Your task to perform on an android device: Open calendar and show me the second week of next month Image 0: 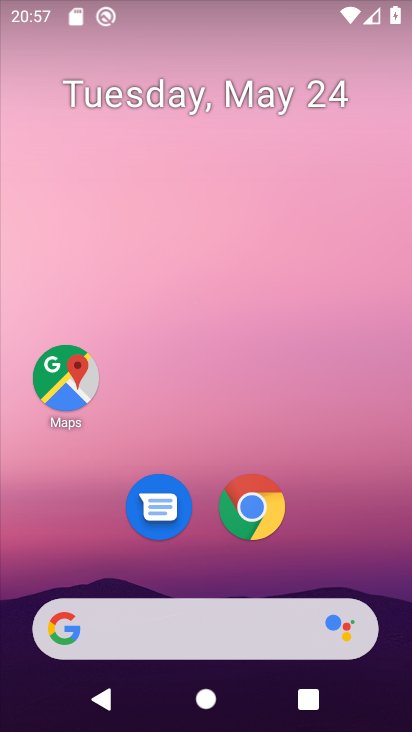
Step 0: drag from (231, 573) to (252, 229)
Your task to perform on an android device: Open calendar and show me the second week of next month Image 1: 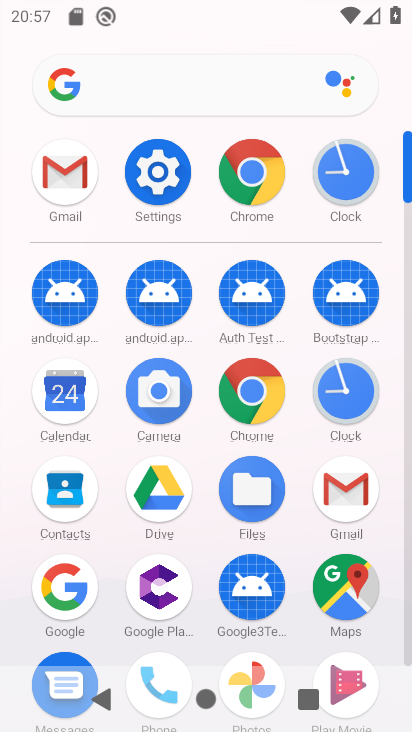
Step 1: click (70, 397)
Your task to perform on an android device: Open calendar and show me the second week of next month Image 2: 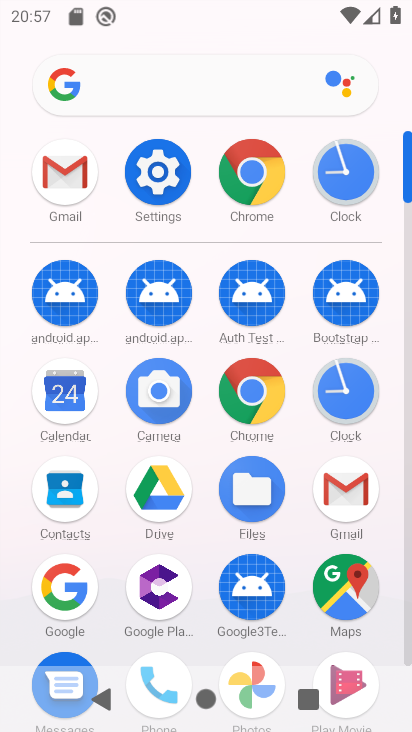
Step 2: click (70, 397)
Your task to perform on an android device: Open calendar and show me the second week of next month Image 3: 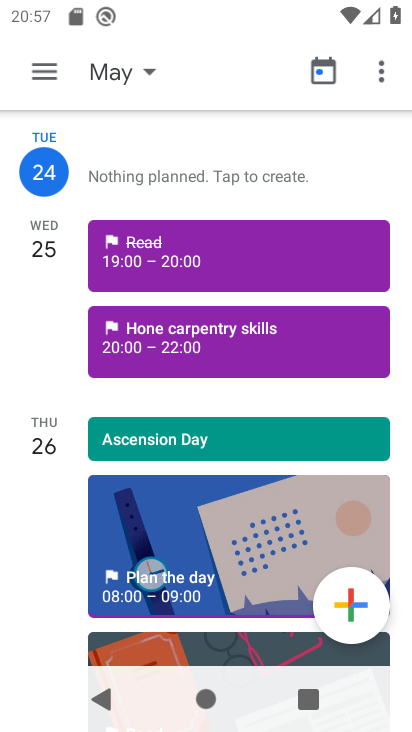
Step 3: click (134, 82)
Your task to perform on an android device: Open calendar and show me the second week of next month Image 4: 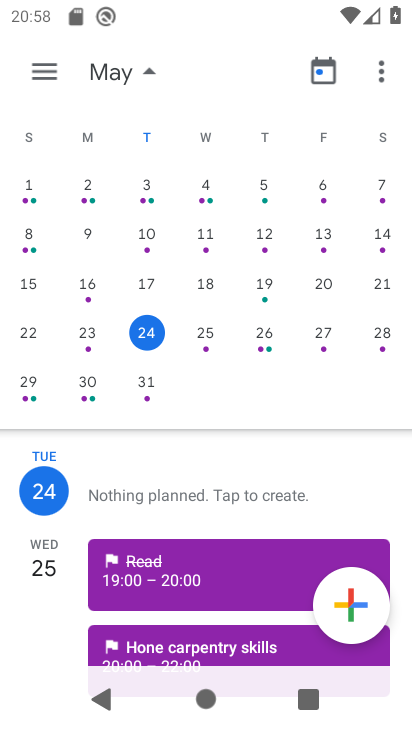
Step 4: drag from (390, 276) to (10, 269)
Your task to perform on an android device: Open calendar and show me the second week of next month Image 5: 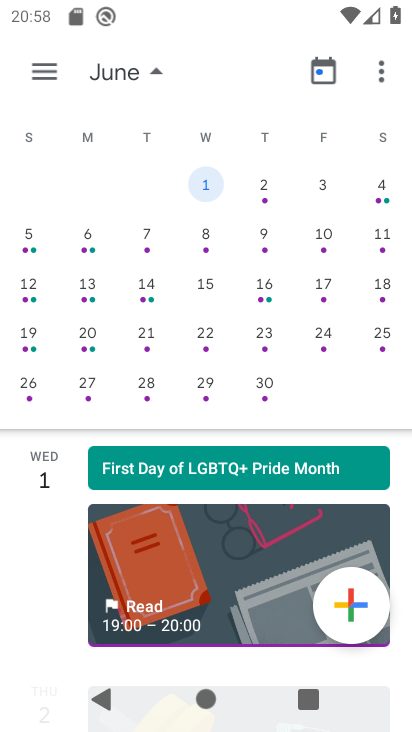
Step 5: click (254, 235)
Your task to perform on an android device: Open calendar and show me the second week of next month Image 6: 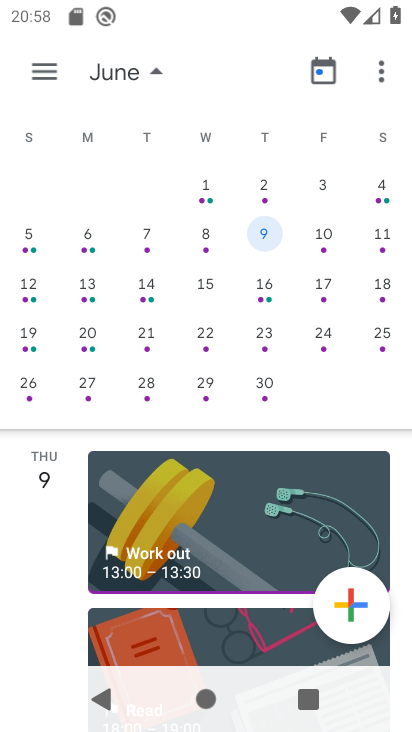
Step 6: task complete